Your task to perform on an android device: turn on sleep mode Image 0: 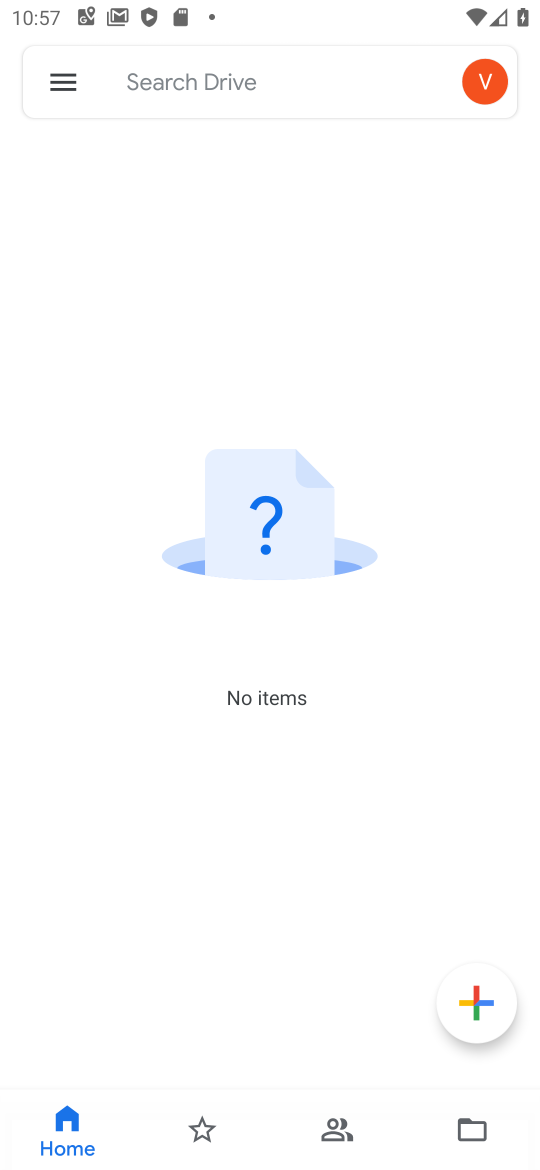
Step 0: press home button
Your task to perform on an android device: turn on sleep mode Image 1: 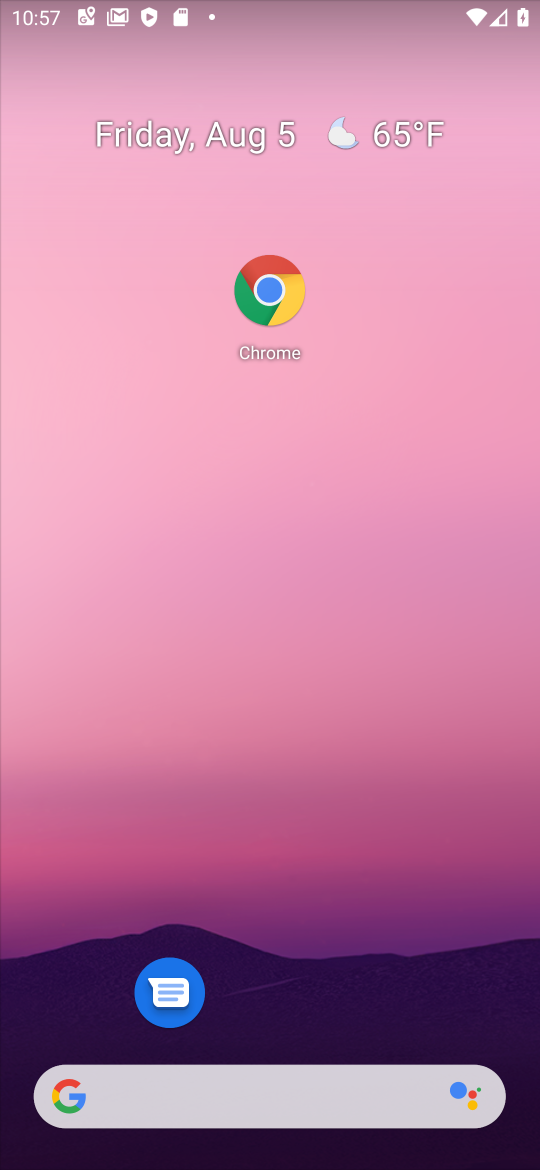
Step 1: drag from (344, 859) to (469, 5)
Your task to perform on an android device: turn on sleep mode Image 2: 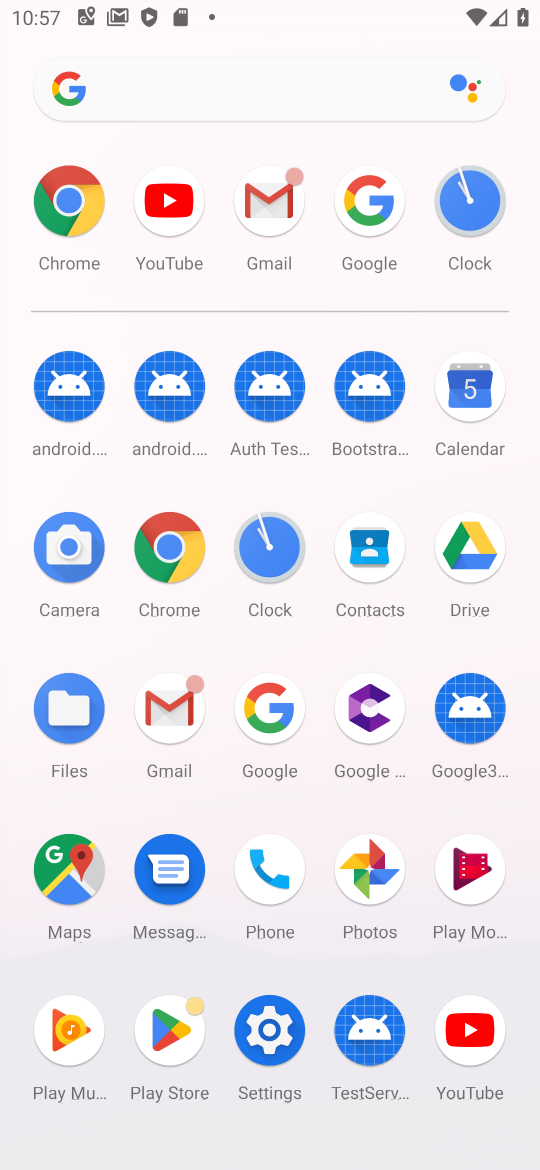
Step 2: click (269, 1031)
Your task to perform on an android device: turn on sleep mode Image 3: 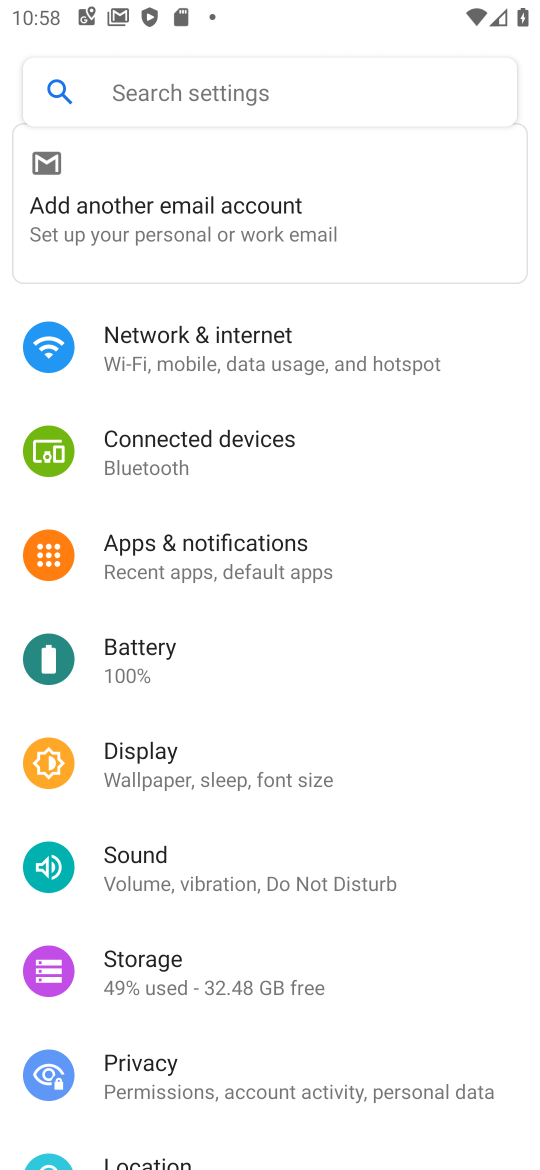
Step 3: click (170, 765)
Your task to perform on an android device: turn on sleep mode Image 4: 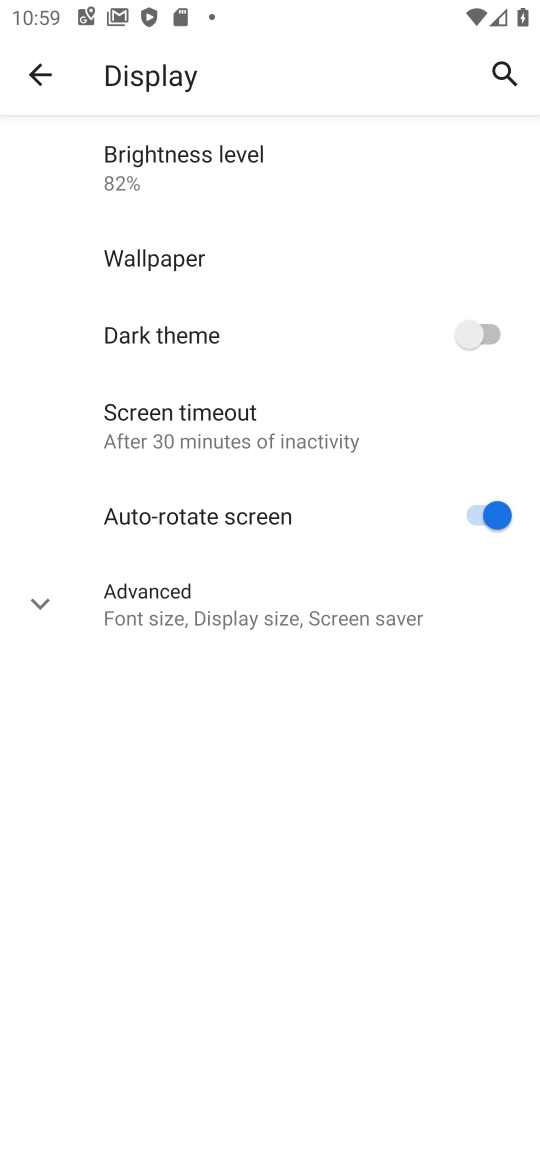
Step 4: task complete